Your task to perform on an android device: Go to Google maps Image 0: 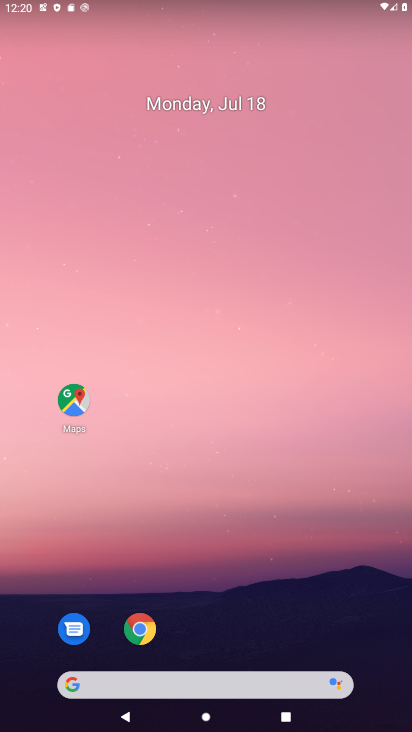
Step 0: click (73, 401)
Your task to perform on an android device: Go to Google maps Image 1: 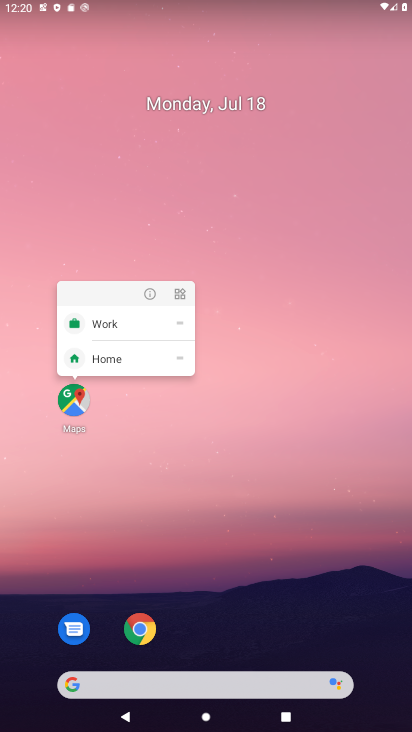
Step 1: click (72, 397)
Your task to perform on an android device: Go to Google maps Image 2: 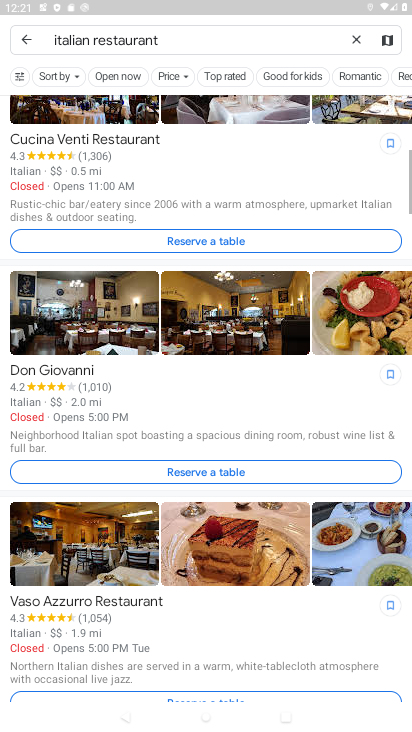
Step 2: click (29, 35)
Your task to perform on an android device: Go to Google maps Image 3: 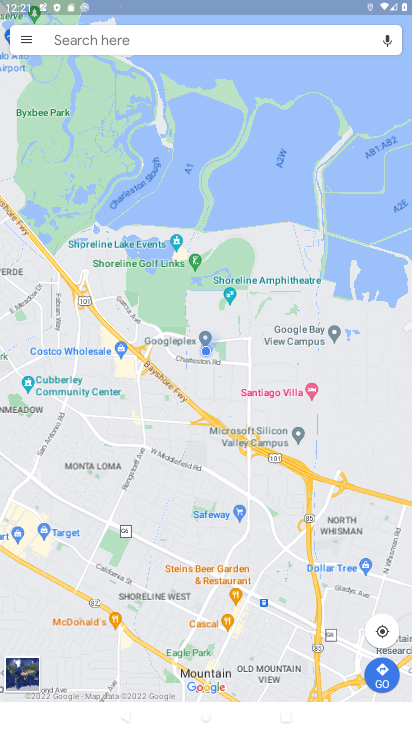
Step 3: task complete